Your task to perform on an android device: turn on translation in the chrome app Image 0: 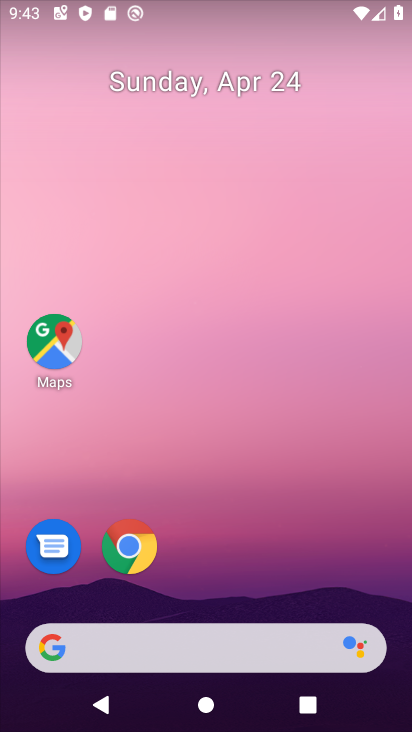
Step 0: drag from (288, 589) to (316, 124)
Your task to perform on an android device: turn on translation in the chrome app Image 1: 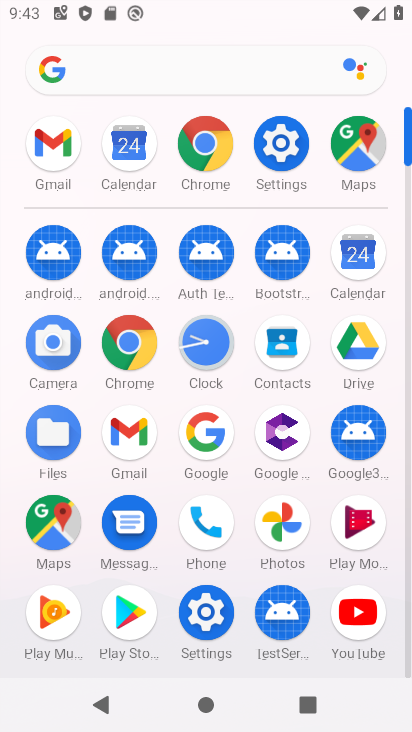
Step 1: click (210, 174)
Your task to perform on an android device: turn on translation in the chrome app Image 2: 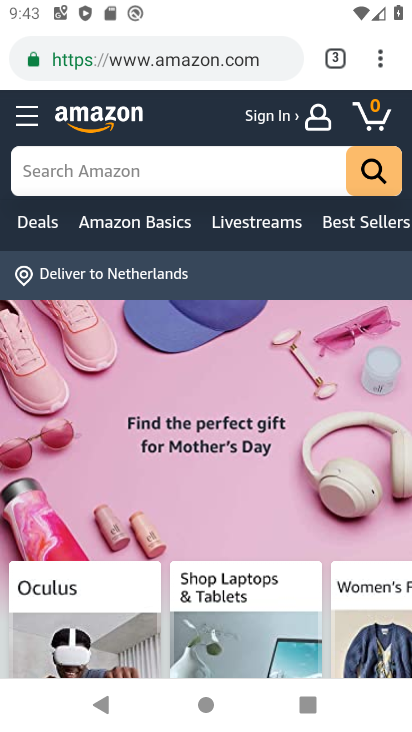
Step 2: click (376, 77)
Your task to perform on an android device: turn on translation in the chrome app Image 3: 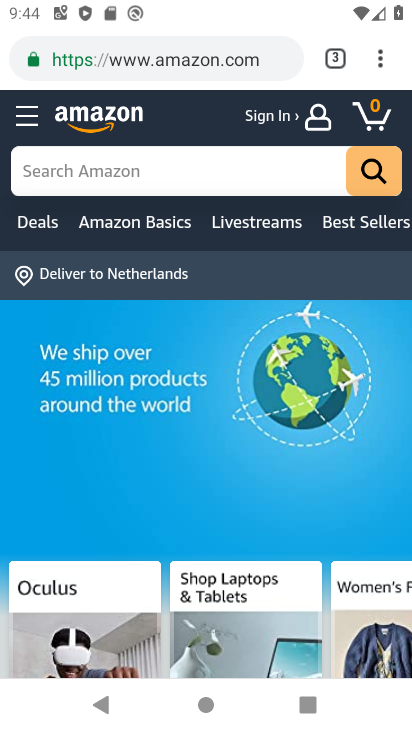
Step 3: click (379, 66)
Your task to perform on an android device: turn on translation in the chrome app Image 4: 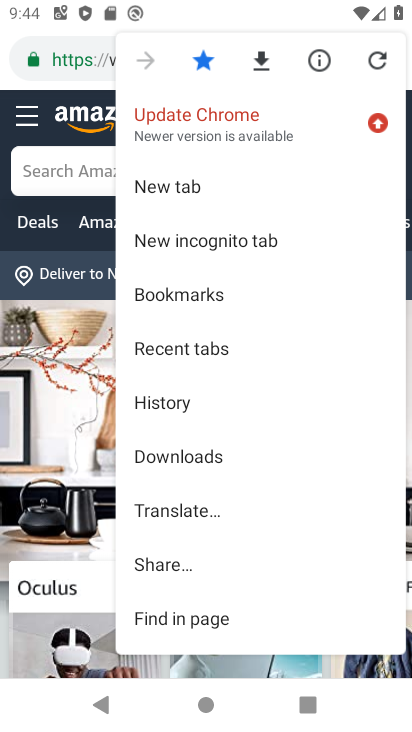
Step 4: drag from (190, 579) to (239, 282)
Your task to perform on an android device: turn on translation in the chrome app Image 5: 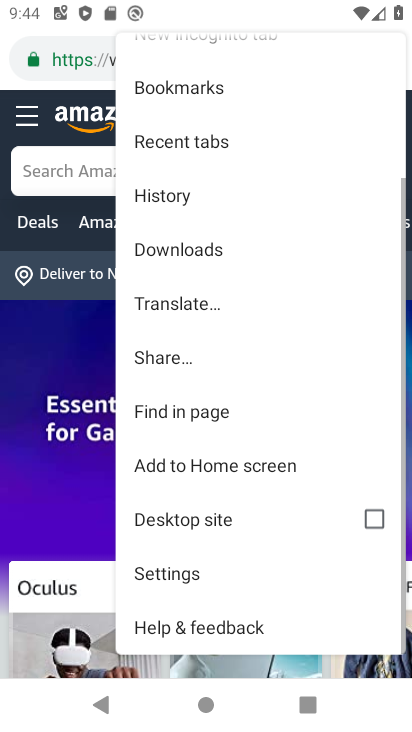
Step 5: click (217, 582)
Your task to perform on an android device: turn on translation in the chrome app Image 6: 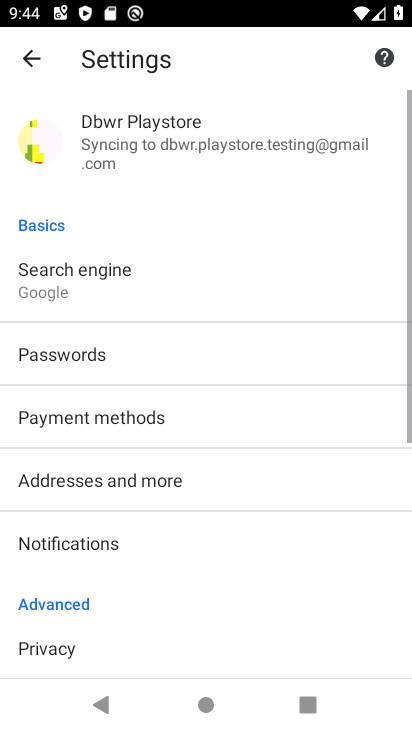
Step 6: drag from (198, 564) to (244, 270)
Your task to perform on an android device: turn on translation in the chrome app Image 7: 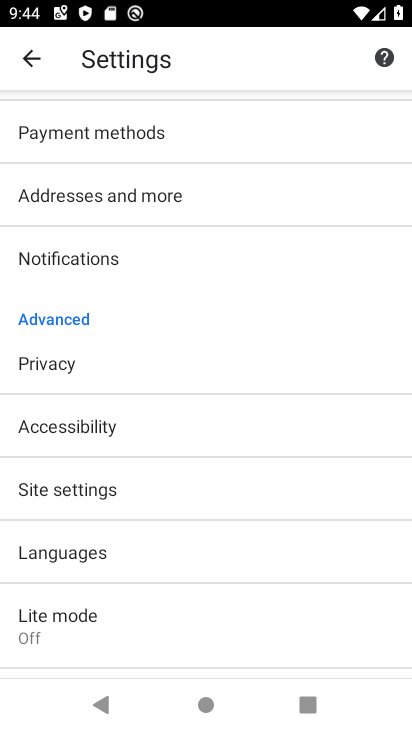
Step 7: click (233, 486)
Your task to perform on an android device: turn on translation in the chrome app Image 8: 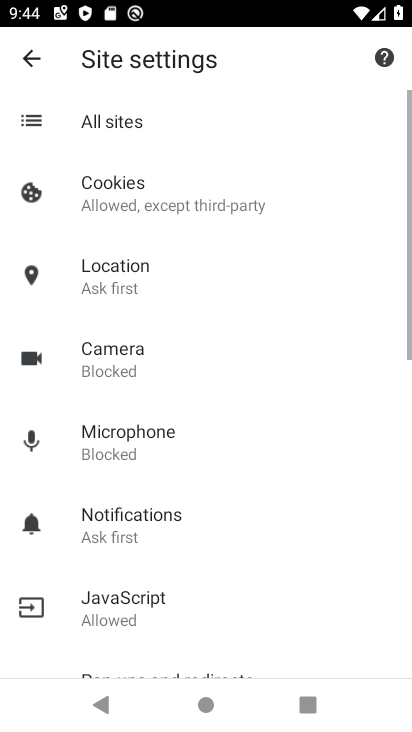
Step 8: click (46, 64)
Your task to perform on an android device: turn on translation in the chrome app Image 9: 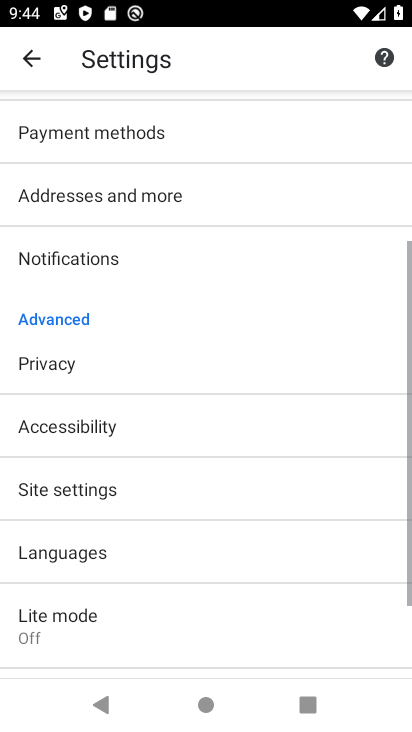
Step 9: drag from (134, 644) to (159, 546)
Your task to perform on an android device: turn on translation in the chrome app Image 10: 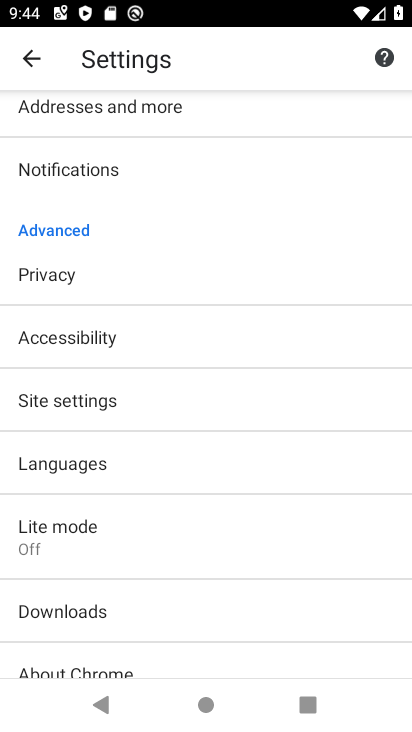
Step 10: click (166, 472)
Your task to perform on an android device: turn on translation in the chrome app Image 11: 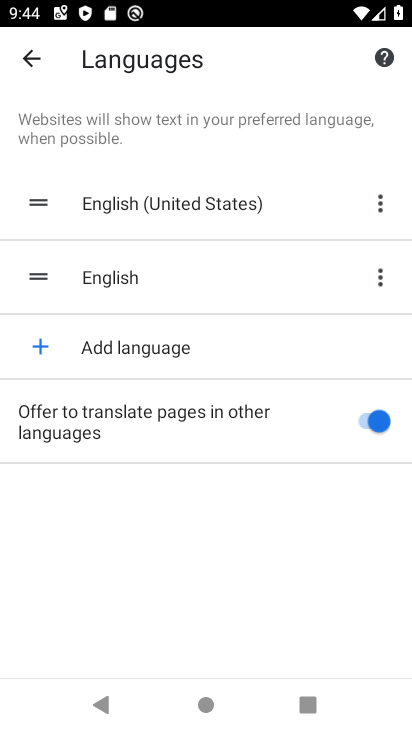
Step 11: click (356, 406)
Your task to perform on an android device: turn on translation in the chrome app Image 12: 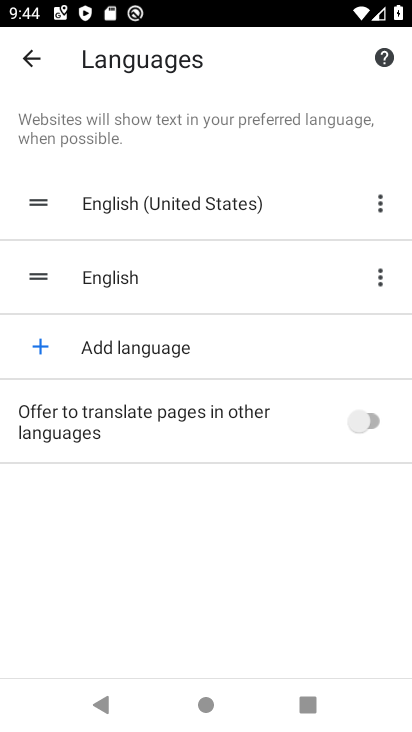
Step 12: task complete